Your task to perform on an android device: turn off airplane mode Image 0: 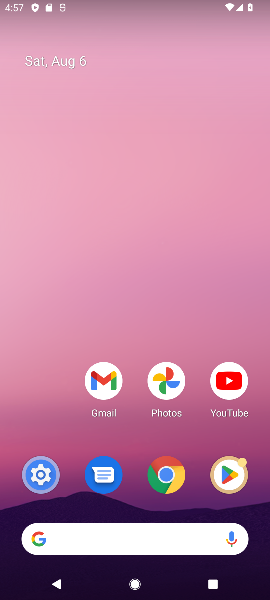
Step 0: drag from (210, 0) to (232, 283)
Your task to perform on an android device: turn off airplane mode Image 1: 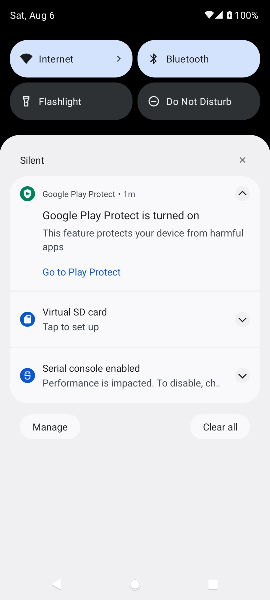
Step 1: task complete